Your task to perform on an android device: Go to location settings Image 0: 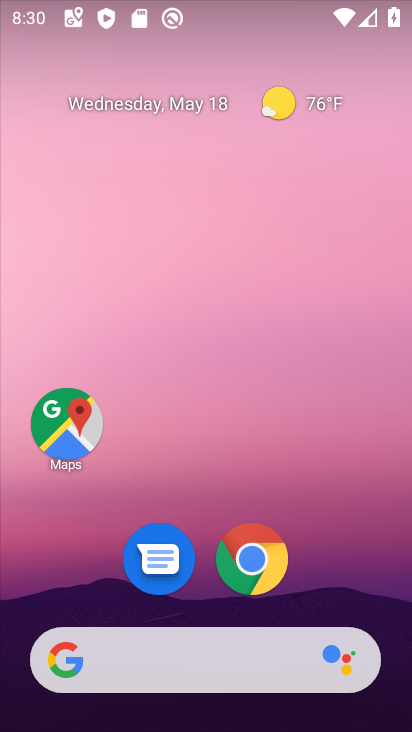
Step 0: drag from (327, 549) to (357, 46)
Your task to perform on an android device: Go to location settings Image 1: 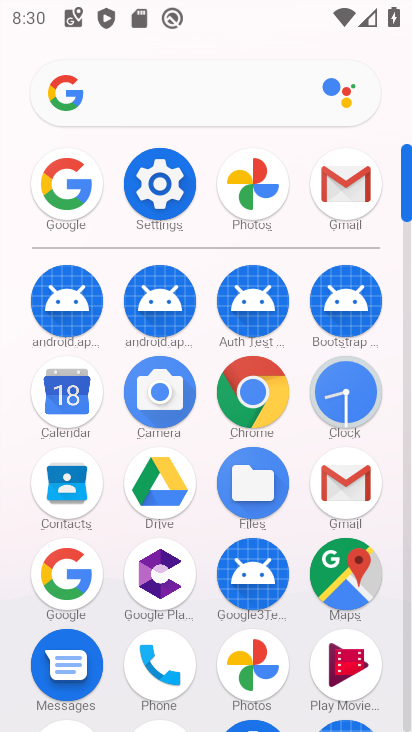
Step 1: click (149, 186)
Your task to perform on an android device: Go to location settings Image 2: 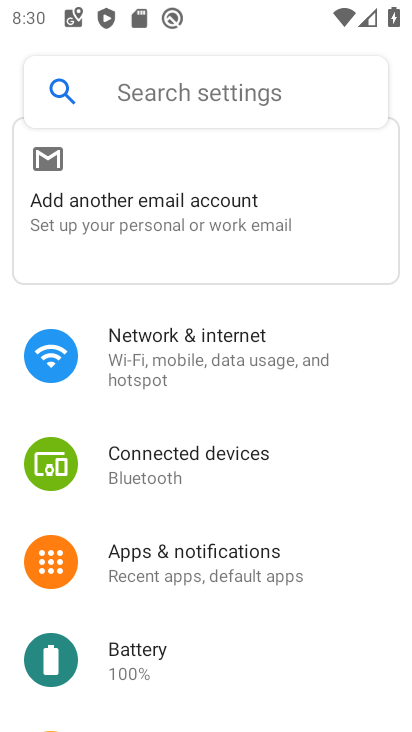
Step 2: drag from (224, 525) to (191, 0)
Your task to perform on an android device: Go to location settings Image 3: 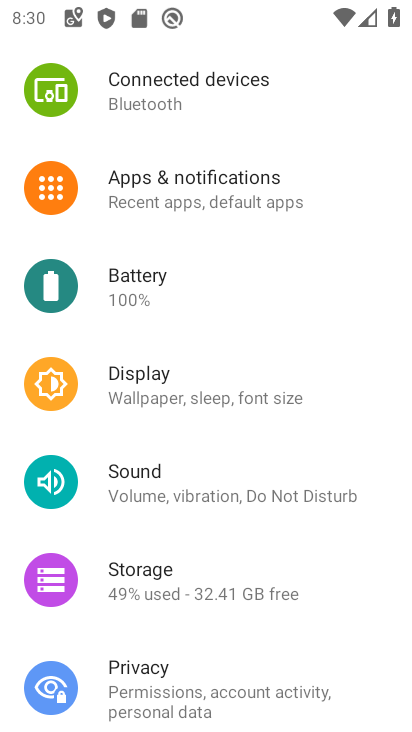
Step 3: drag from (153, 677) to (191, 240)
Your task to perform on an android device: Go to location settings Image 4: 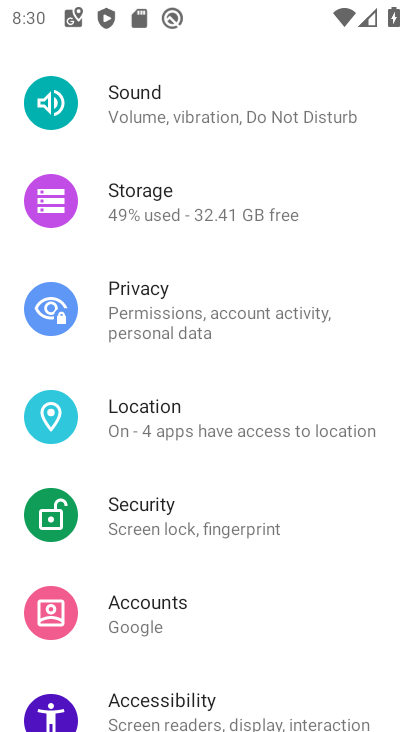
Step 4: click (143, 407)
Your task to perform on an android device: Go to location settings Image 5: 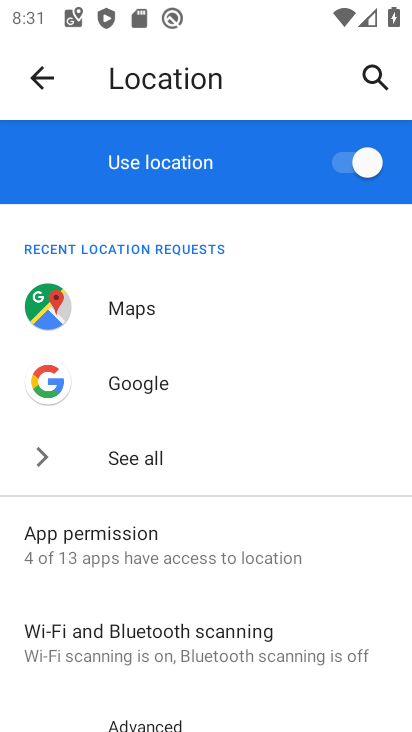
Step 5: task complete